Your task to perform on an android device: Go to sound settings Image 0: 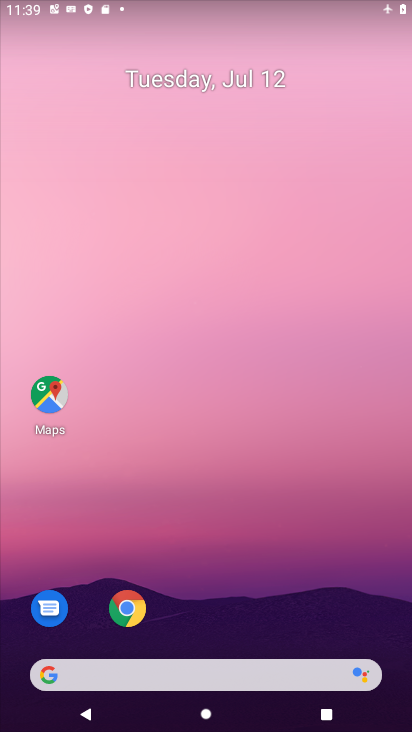
Step 0: drag from (222, 717) to (225, 98)
Your task to perform on an android device: Go to sound settings Image 1: 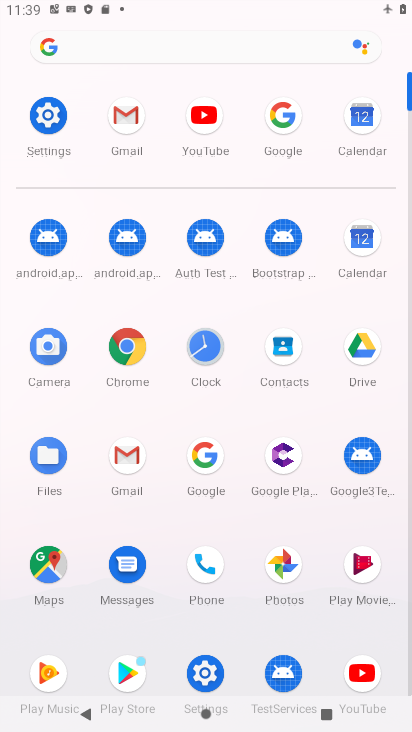
Step 1: click (45, 109)
Your task to perform on an android device: Go to sound settings Image 2: 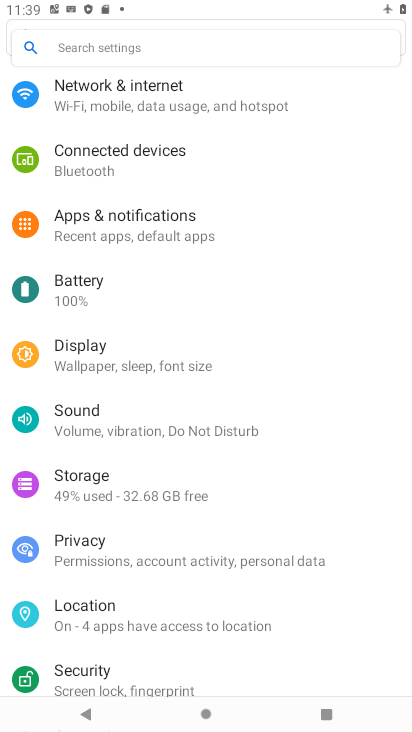
Step 2: click (78, 415)
Your task to perform on an android device: Go to sound settings Image 3: 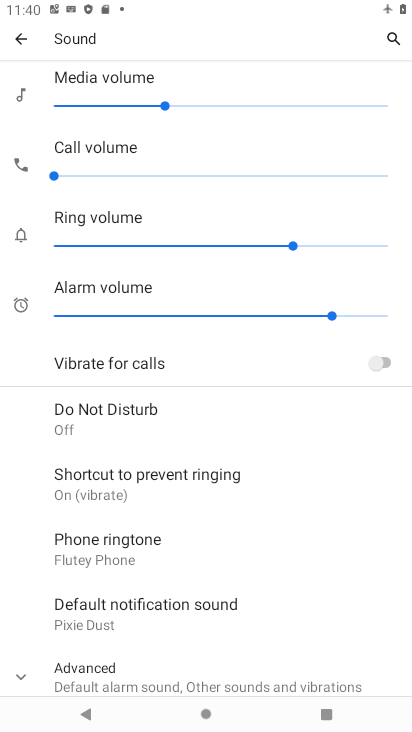
Step 3: task complete